Your task to perform on an android device: Toggle the flashlight Image 0: 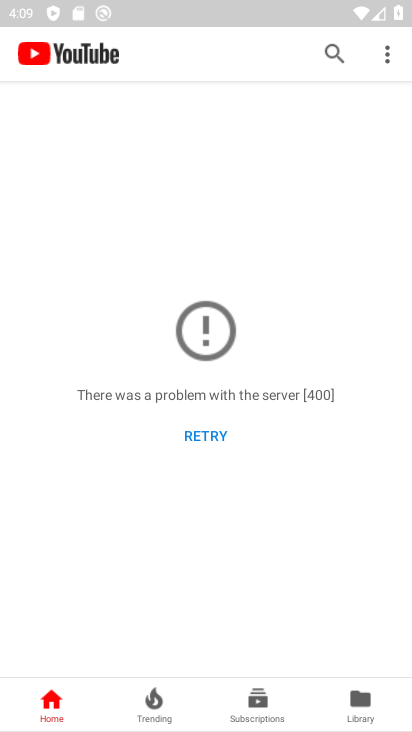
Step 0: press home button
Your task to perform on an android device: Toggle the flashlight Image 1: 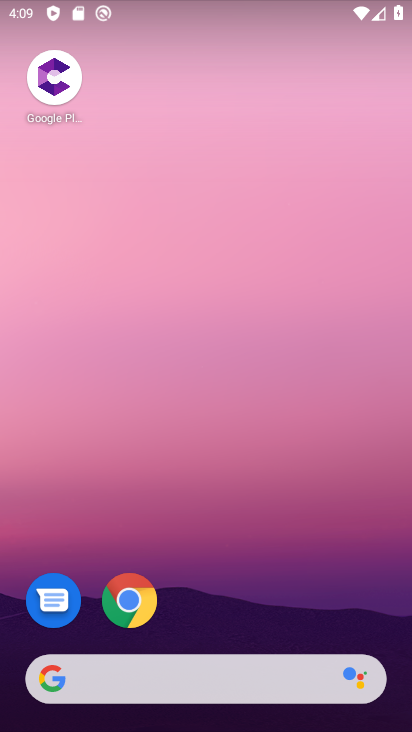
Step 1: drag from (237, 17) to (250, 517)
Your task to perform on an android device: Toggle the flashlight Image 2: 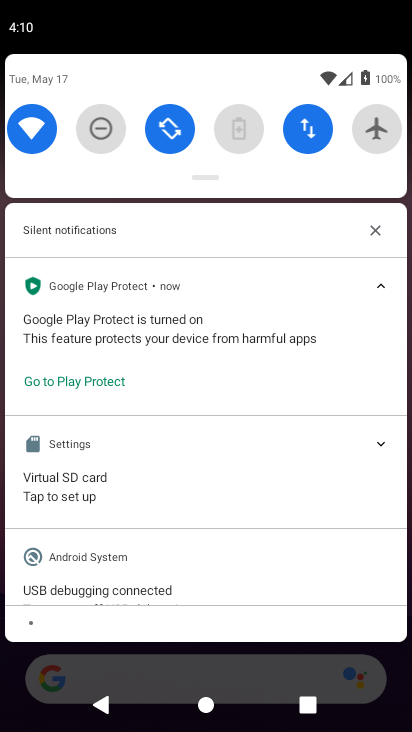
Step 2: drag from (209, 185) to (199, 461)
Your task to perform on an android device: Toggle the flashlight Image 3: 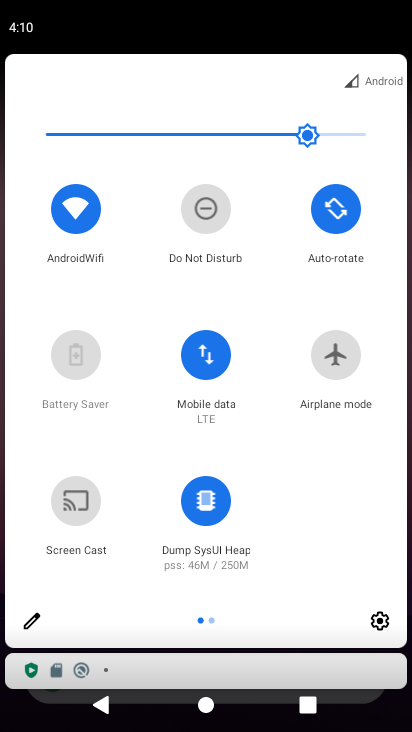
Step 3: click (29, 622)
Your task to perform on an android device: Toggle the flashlight Image 4: 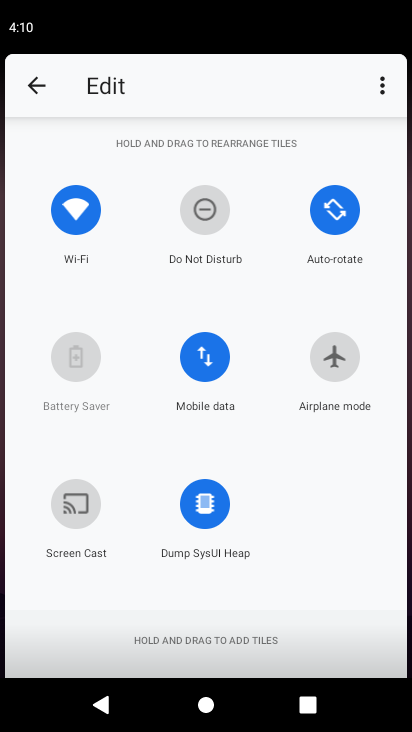
Step 4: task complete